Your task to perform on an android device: Turn on the flashlight Image 0: 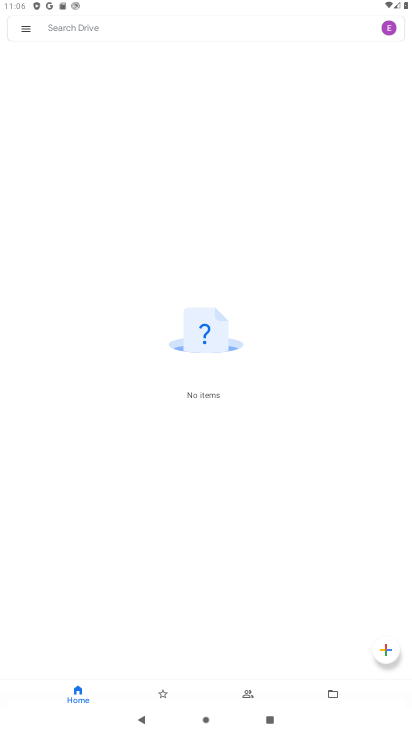
Step 0: press home button
Your task to perform on an android device: Turn on the flashlight Image 1: 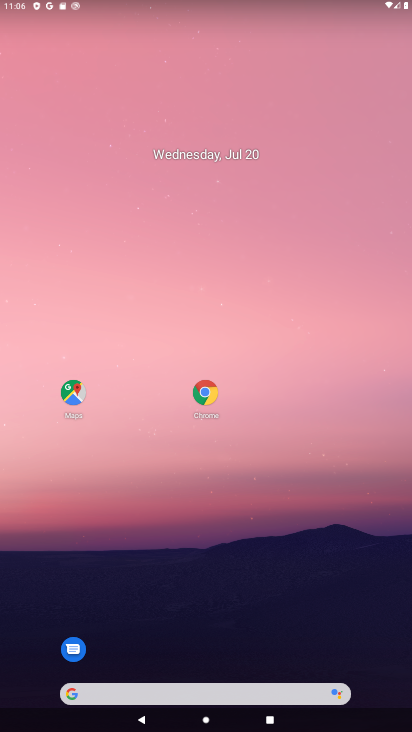
Step 1: drag from (270, 650) to (267, 201)
Your task to perform on an android device: Turn on the flashlight Image 2: 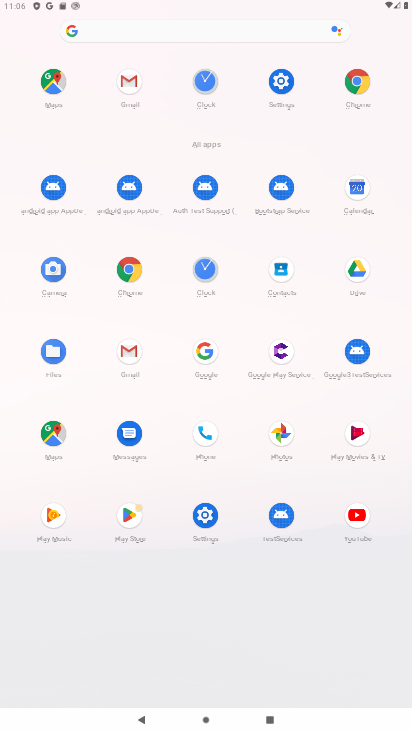
Step 2: click (284, 74)
Your task to perform on an android device: Turn on the flashlight Image 3: 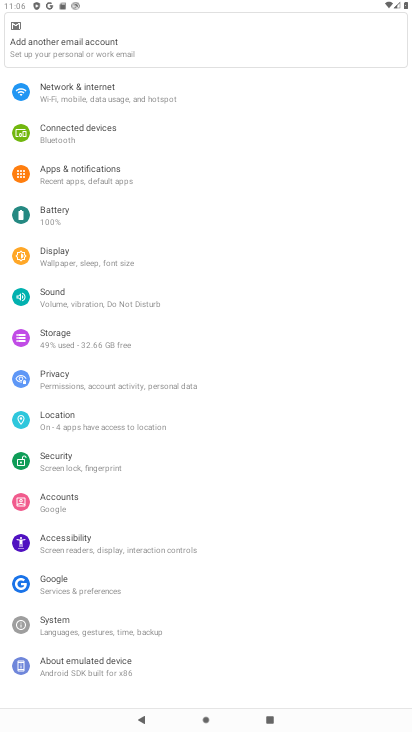
Step 3: task complete